Your task to perform on an android device: Open Google Chrome Image 0: 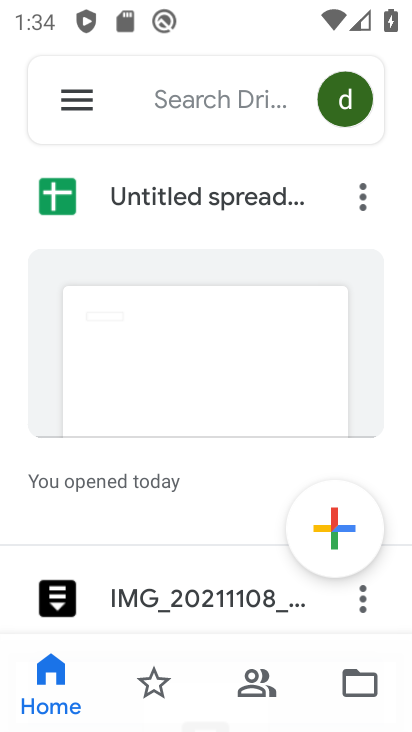
Step 0: press home button
Your task to perform on an android device: Open Google Chrome Image 1: 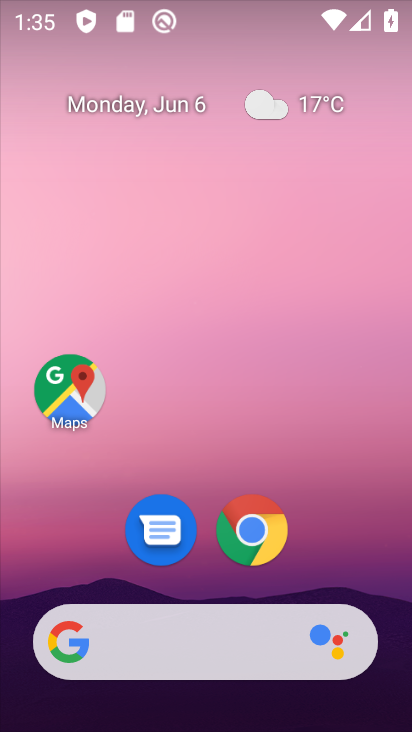
Step 1: drag from (303, 588) to (331, 242)
Your task to perform on an android device: Open Google Chrome Image 2: 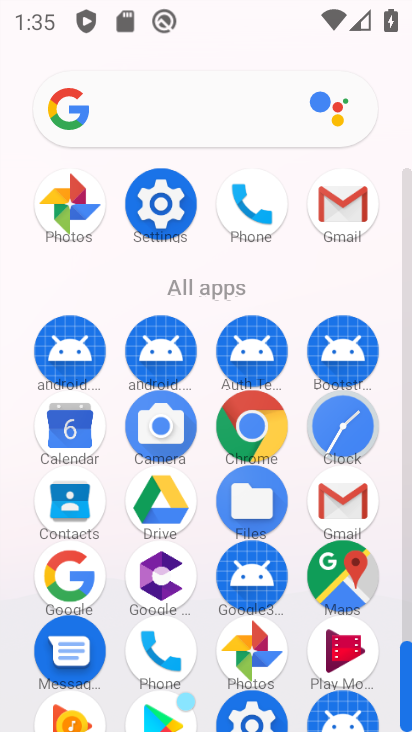
Step 2: click (67, 570)
Your task to perform on an android device: Open Google Chrome Image 3: 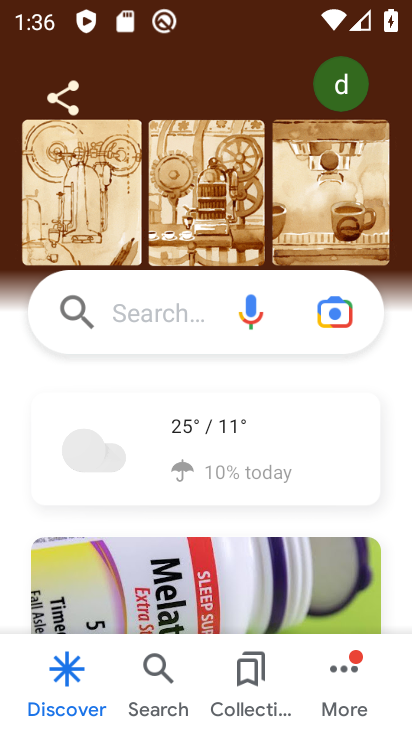
Step 3: task complete